Your task to perform on an android device: turn on airplane mode Image 0: 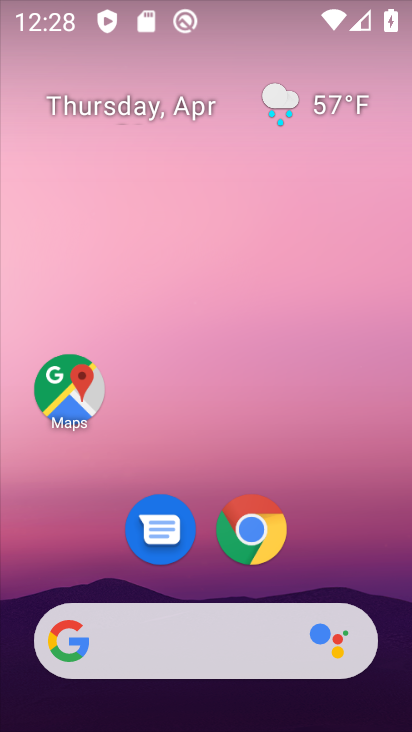
Step 0: drag from (183, 637) to (186, 15)
Your task to perform on an android device: turn on airplane mode Image 1: 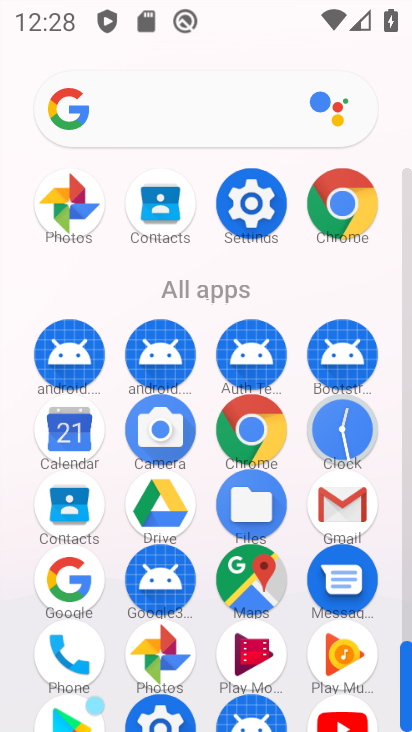
Step 1: click (245, 197)
Your task to perform on an android device: turn on airplane mode Image 2: 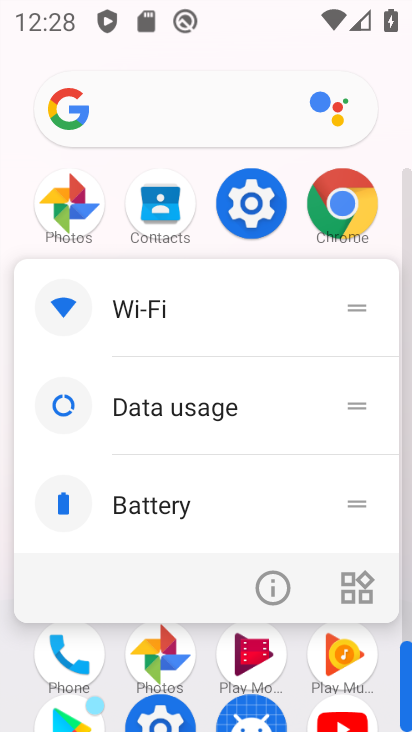
Step 2: click (249, 190)
Your task to perform on an android device: turn on airplane mode Image 3: 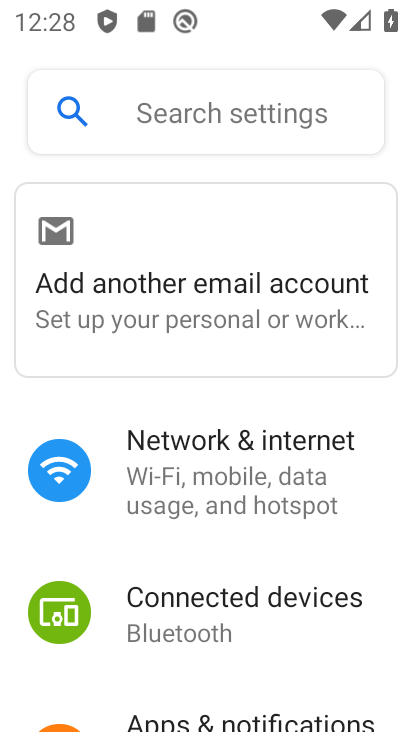
Step 3: click (225, 468)
Your task to perform on an android device: turn on airplane mode Image 4: 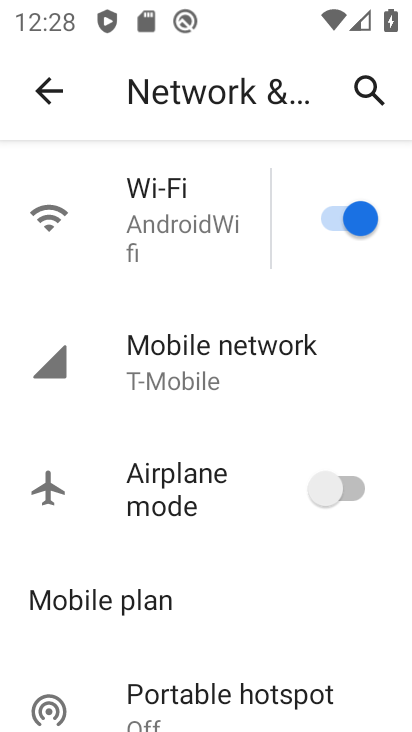
Step 4: click (350, 493)
Your task to perform on an android device: turn on airplane mode Image 5: 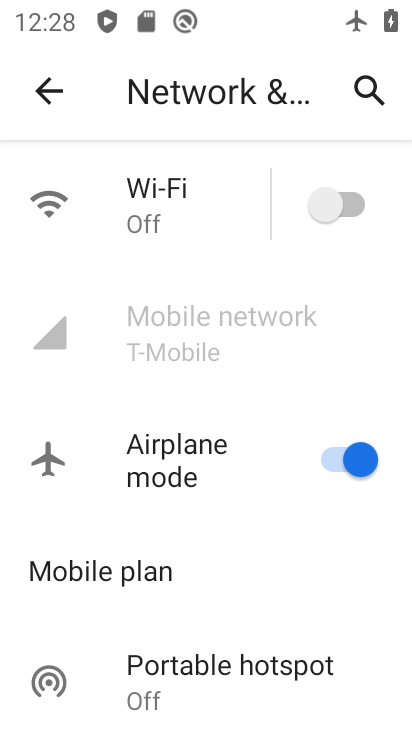
Step 5: task complete